Your task to perform on an android device: Clear the shopping cart on bestbuy. Search for logitech g pro on bestbuy, select the first entry, and add it to the cart. Image 0: 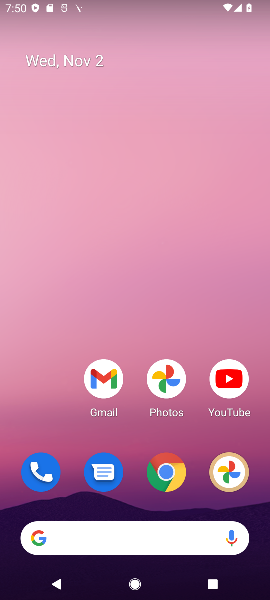
Step 0: task complete